Your task to perform on an android device: turn on location history Image 0: 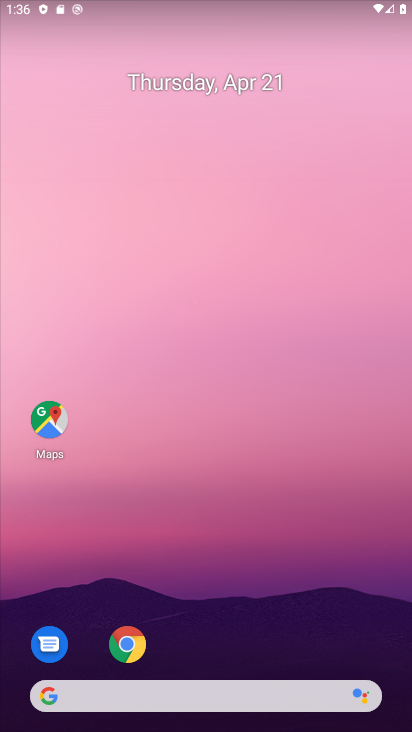
Step 0: drag from (227, 631) to (259, 228)
Your task to perform on an android device: turn on location history Image 1: 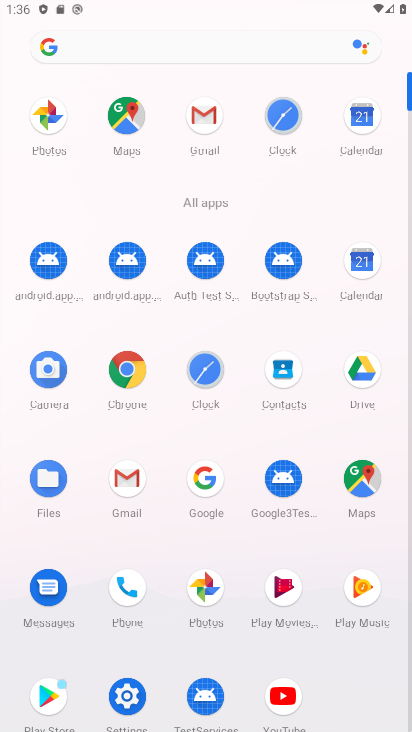
Step 1: click (121, 696)
Your task to perform on an android device: turn on location history Image 2: 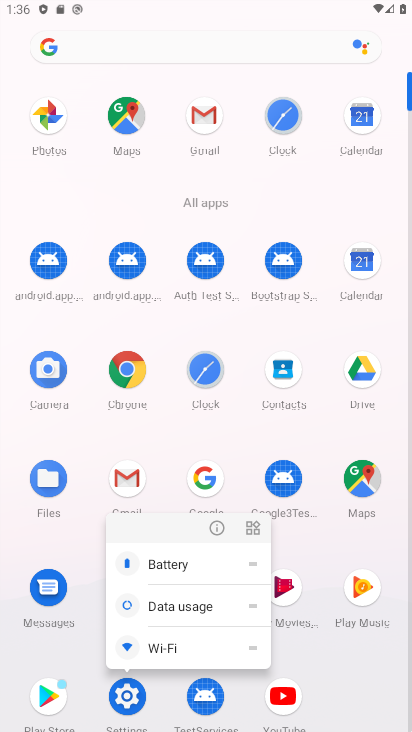
Step 2: click (104, 684)
Your task to perform on an android device: turn on location history Image 3: 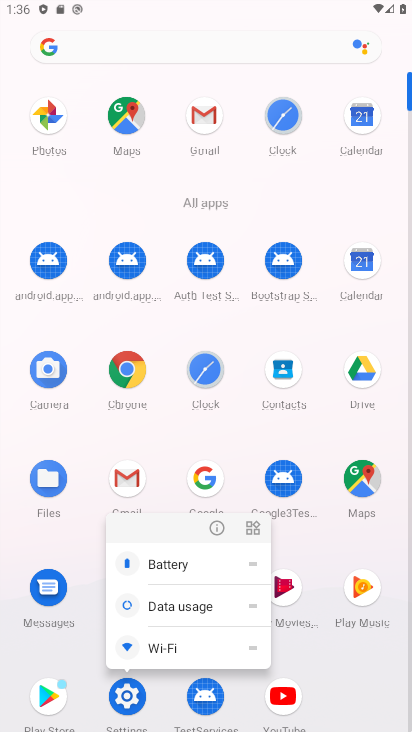
Step 3: click (111, 695)
Your task to perform on an android device: turn on location history Image 4: 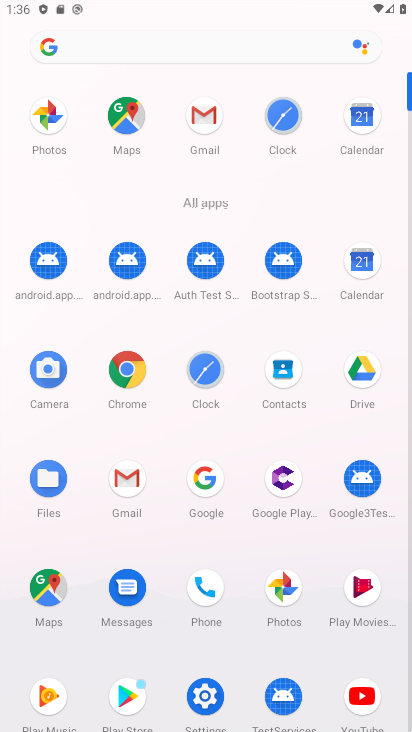
Step 4: click (206, 695)
Your task to perform on an android device: turn on location history Image 5: 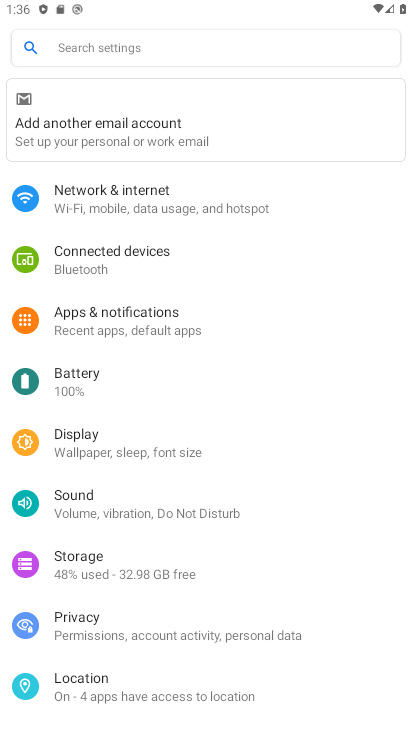
Step 5: drag from (191, 544) to (167, 338)
Your task to perform on an android device: turn on location history Image 6: 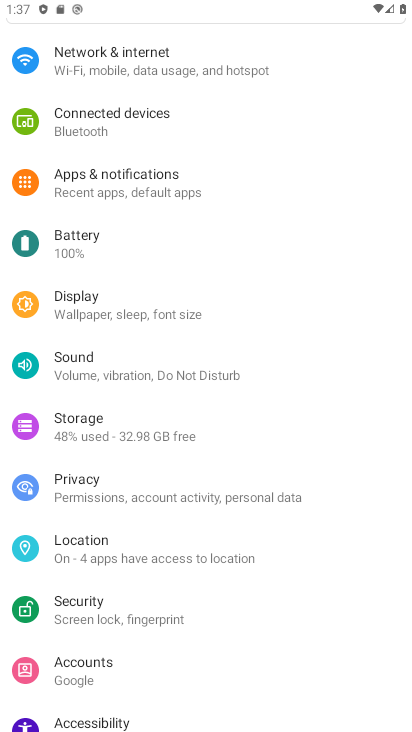
Step 6: click (103, 559)
Your task to perform on an android device: turn on location history Image 7: 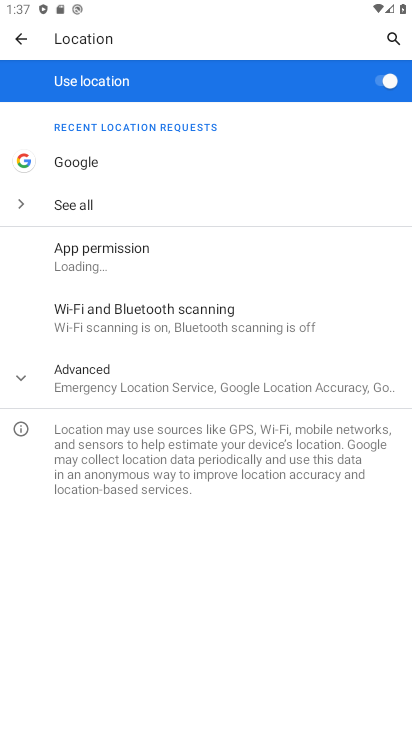
Step 7: click (73, 374)
Your task to perform on an android device: turn on location history Image 8: 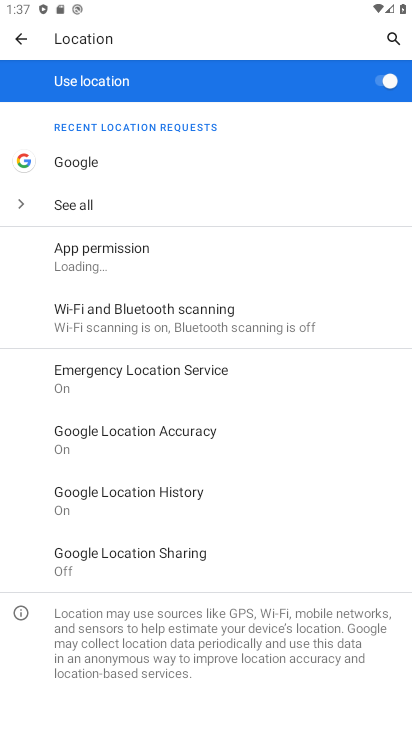
Step 8: task complete